Your task to perform on an android device: Go to Google maps Image 0: 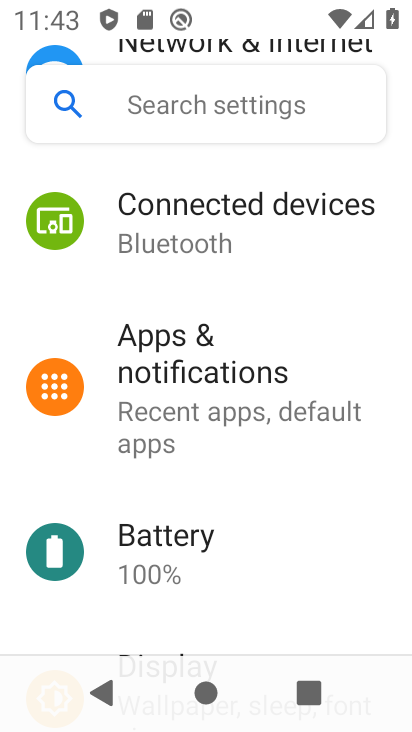
Step 0: press home button
Your task to perform on an android device: Go to Google maps Image 1: 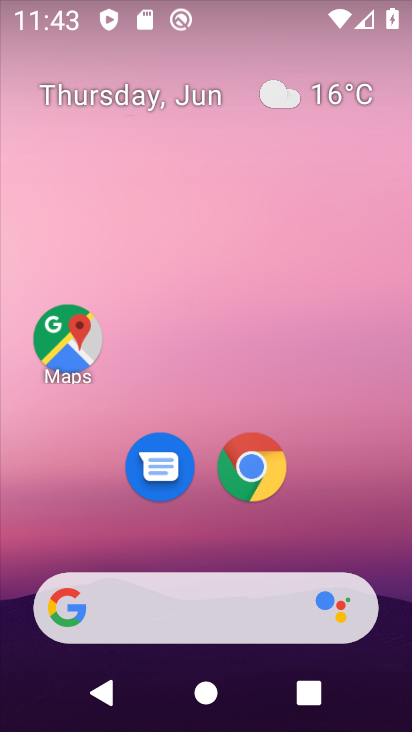
Step 1: click (70, 339)
Your task to perform on an android device: Go to Google maps Image 2: 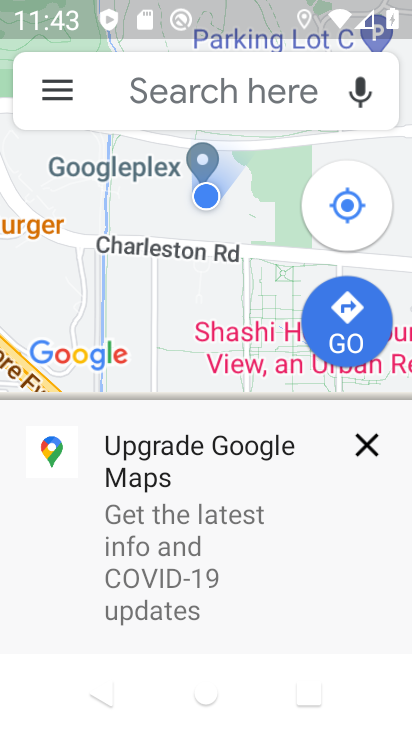
Step 2: click (366, 444)
Your task to perform on an android device: Go to Google maps Image 3: 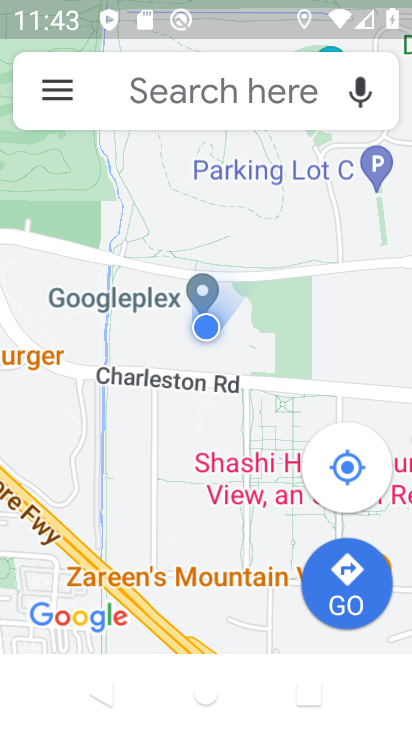
Step 3: task complete